Your task to perform on an android device: toggle wifi Image 0: 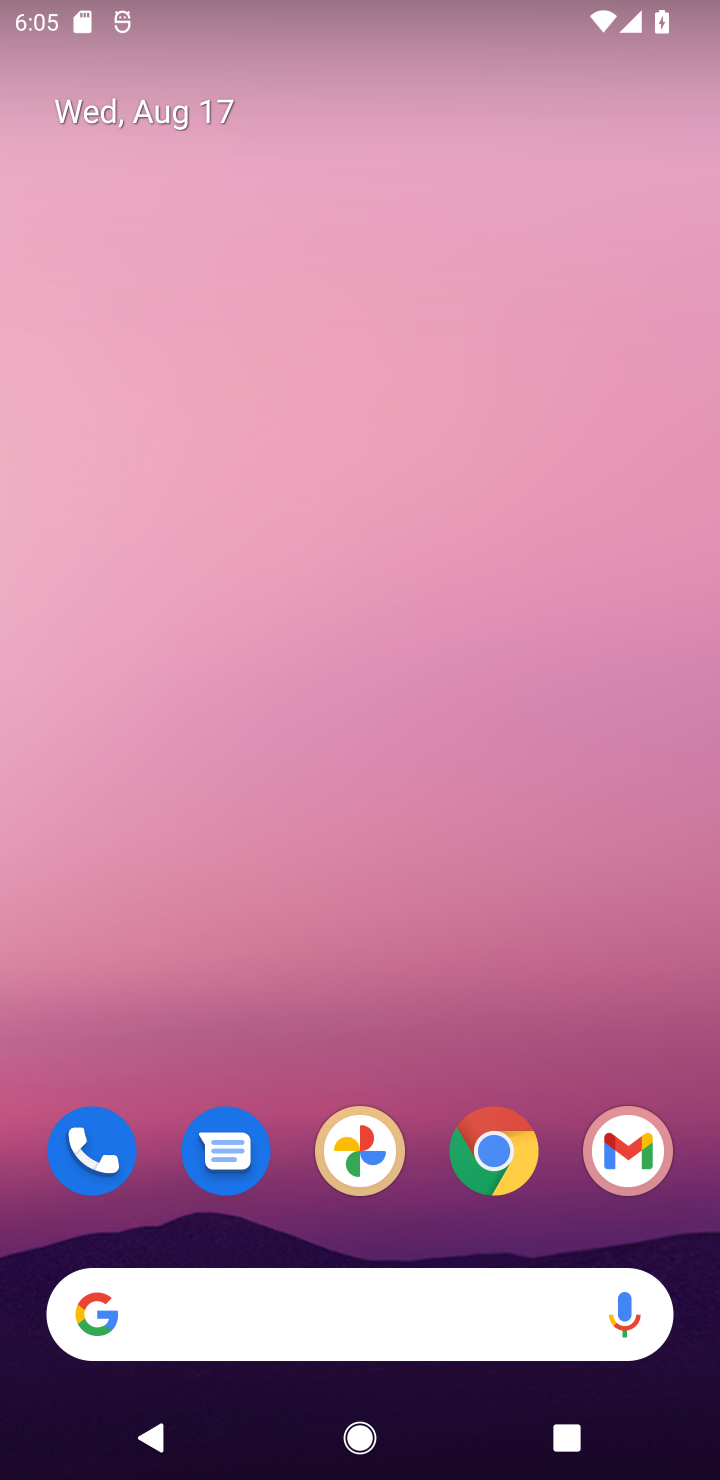
Step 0: drag from (417, 1259) to (398, 363)
Your task to perform on an android device: toggle wifi Image 1: 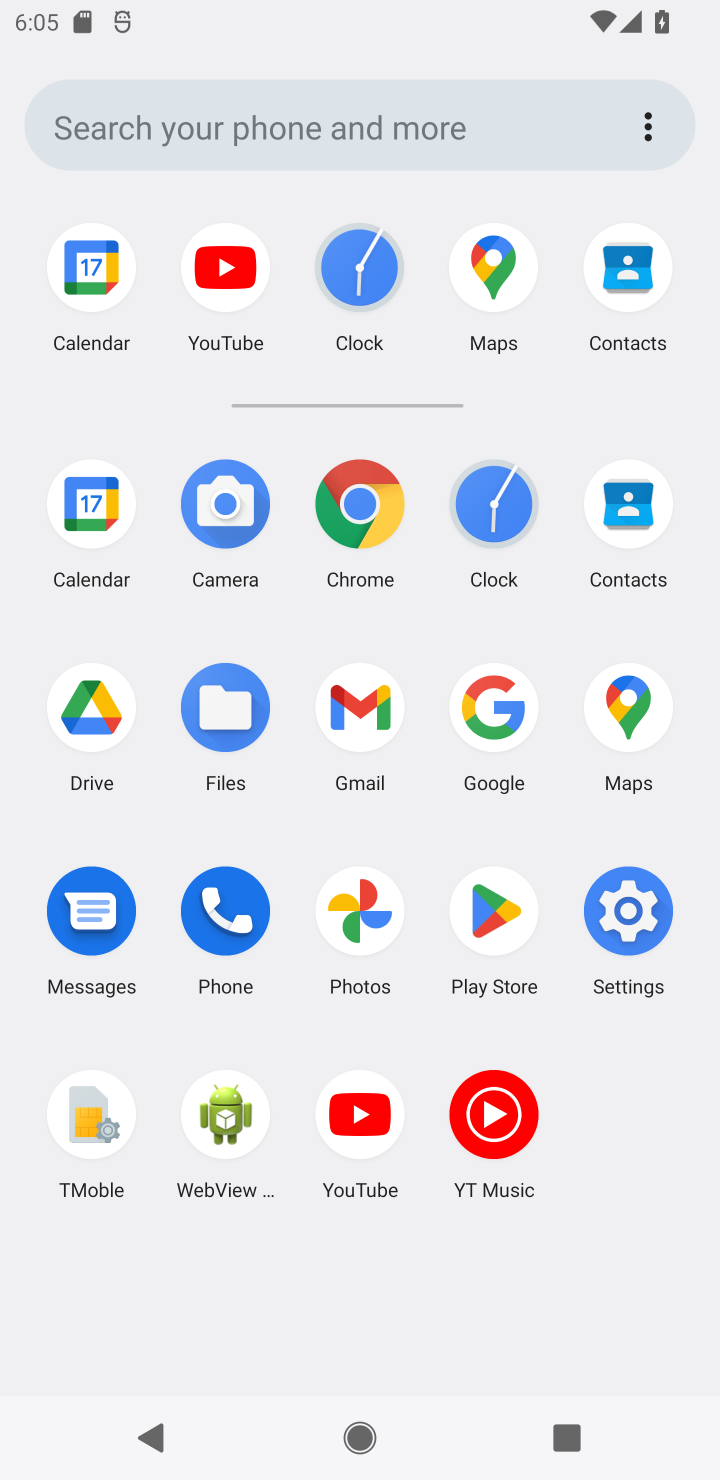
Step 1: click (647, 957)
Your task to perform on an android device: toggle wifi Image 2: 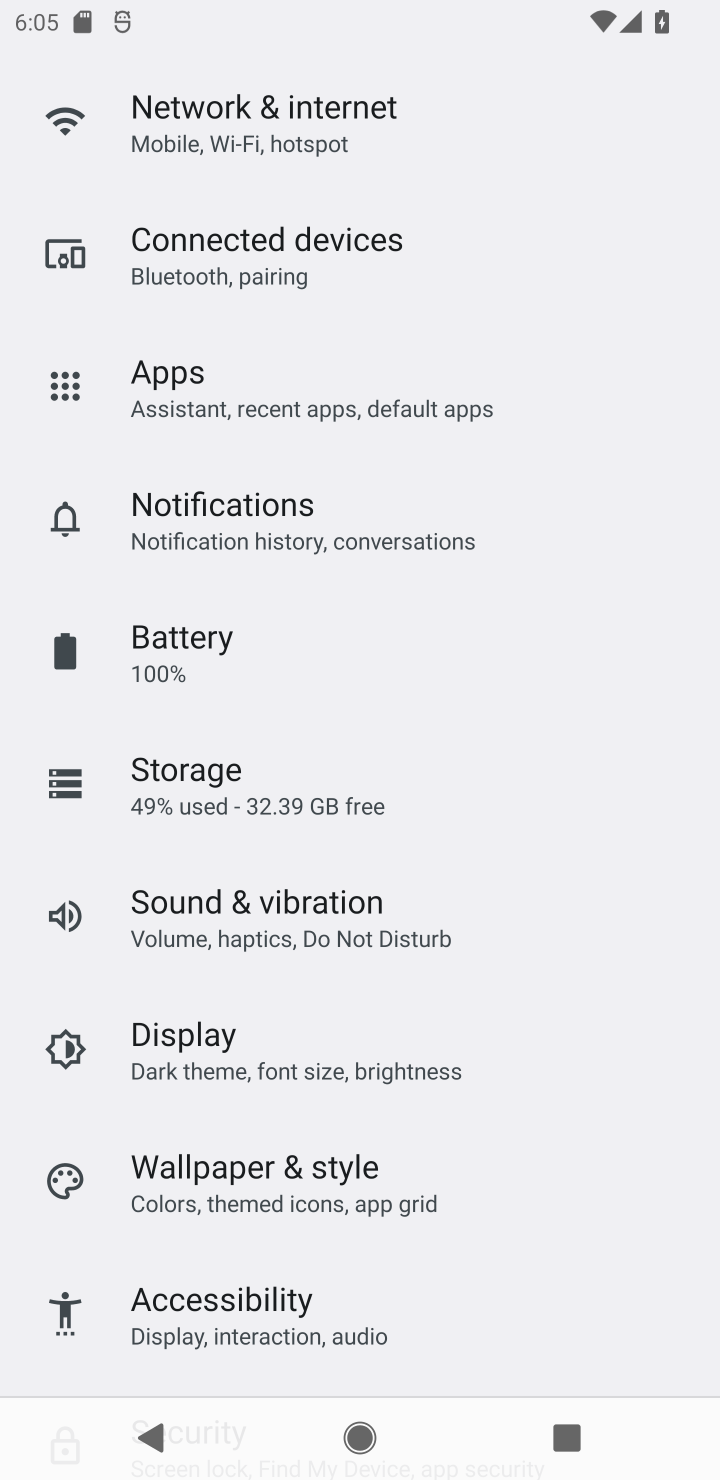
Step 2: click (210, 149)
Your task to perform on an android device: toggle wifi Image 3: 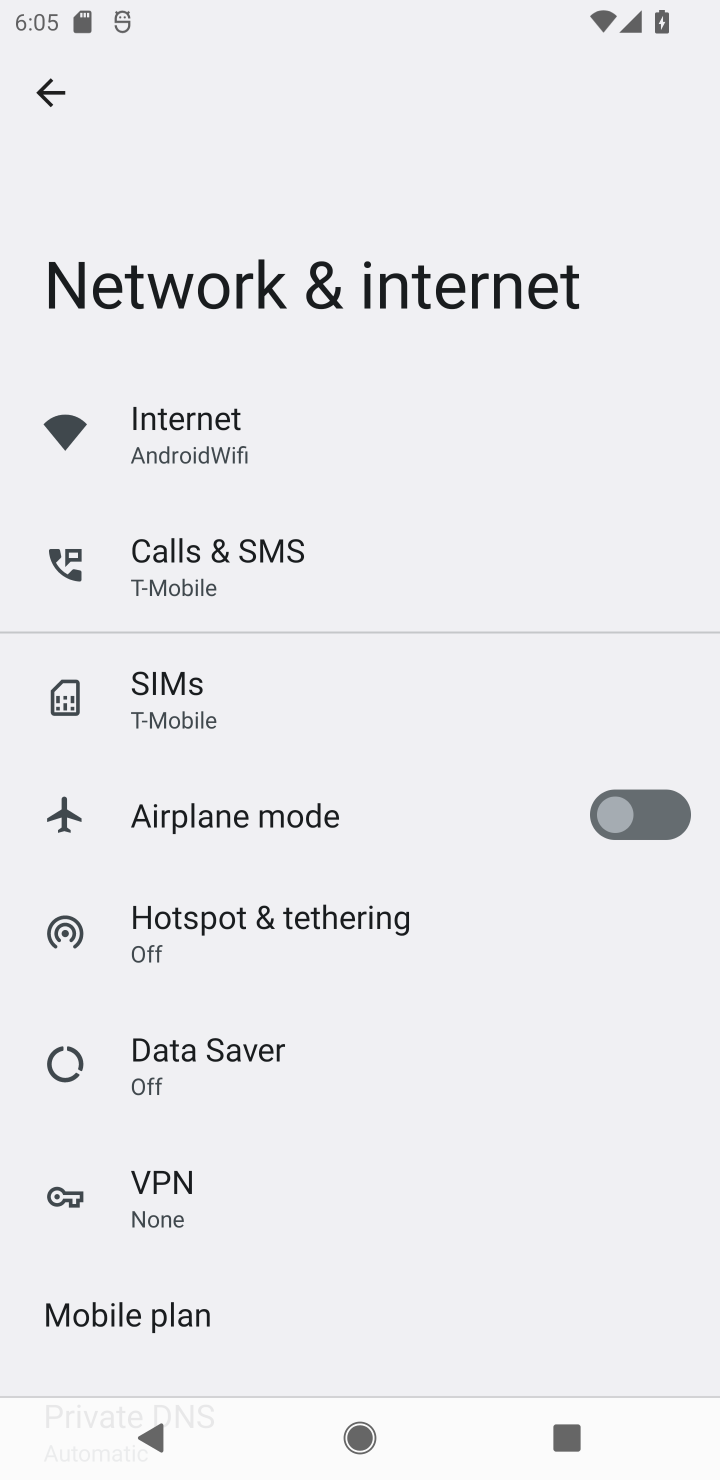
Step 3: click (424, 478)
Your task to perform on an android device: toggle wifi Image 4: 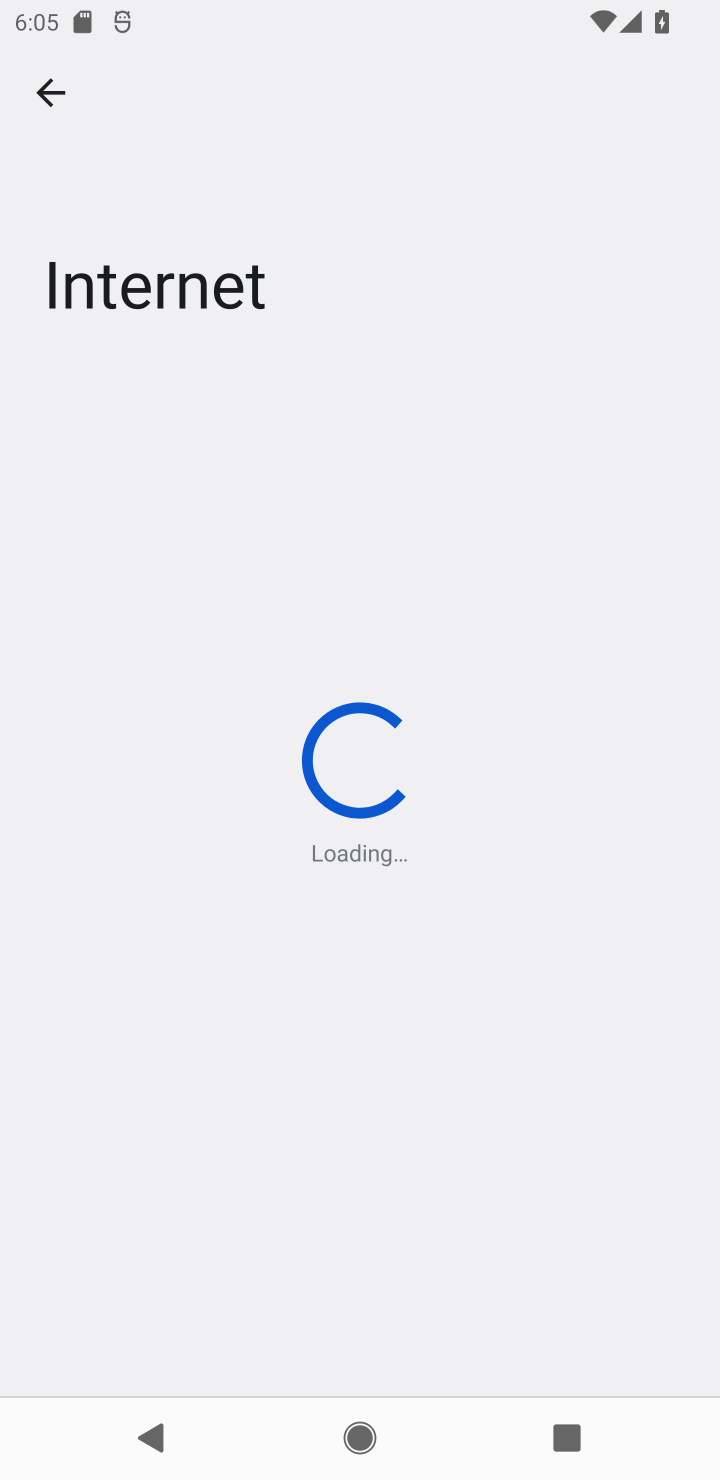
Step 4: task complete